Your task to perform on an android device: all mails in gmail Image 0: 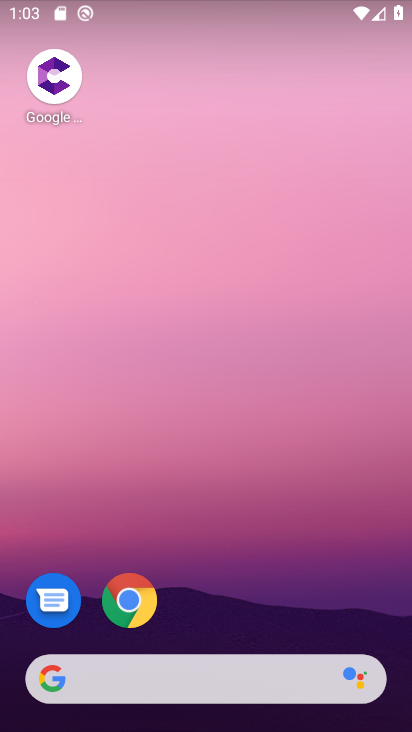
Step 0: drag from (253, 579) to (162, 51)
Your task to perform on an android device: all mails in gmail Image 1: 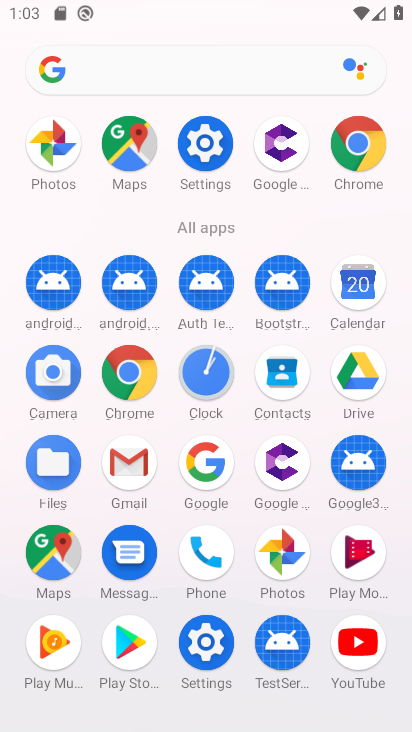
Step 1: click (138, 470)
Your task to perform on an android device: all mails in gmail Image 2: 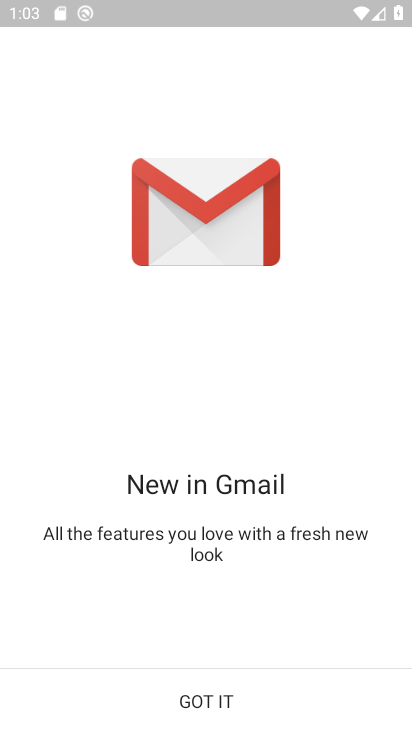
Step 2: click (213, 704)
Your task to perform on an android device: all mails in gmail Image 3: 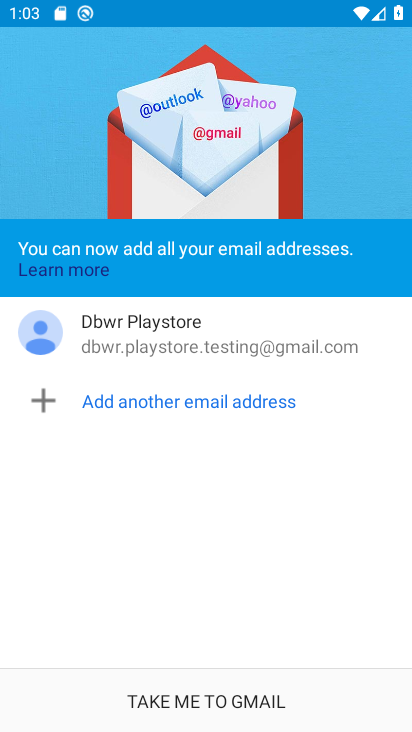
Step 3: click (229, 689)
Your task to perform on an android device: all mails in gmail Image 4: 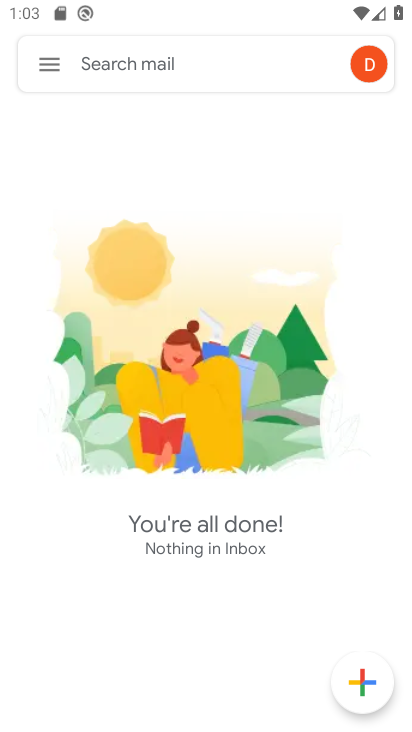
Step 4: click (51, 67)
Your task to perform on an android device: all mails in gmail Image 5: 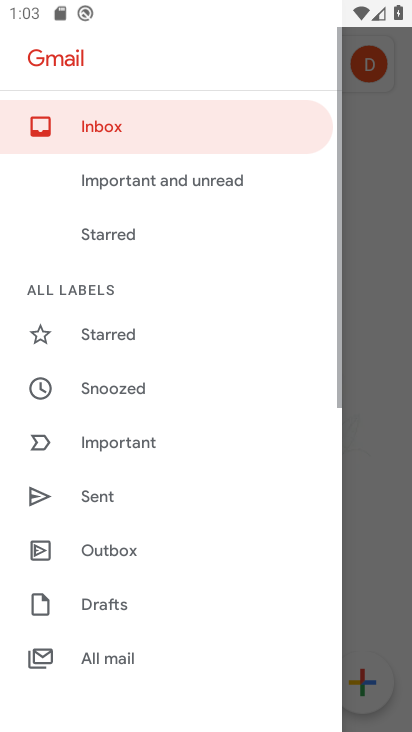
Step 5: drag from (157, 601) to (139, 349)
Your task to perform on an android device: all mails in gmail Image 6: 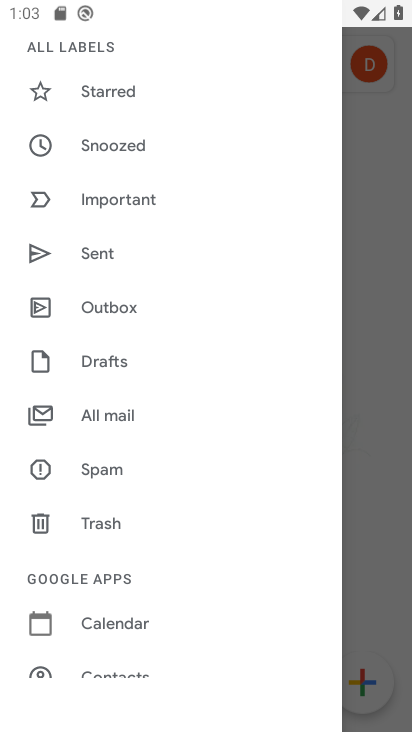
Step 6: click (122, 411)
Your task to perform on an android device: all mails in gmail Image 7: 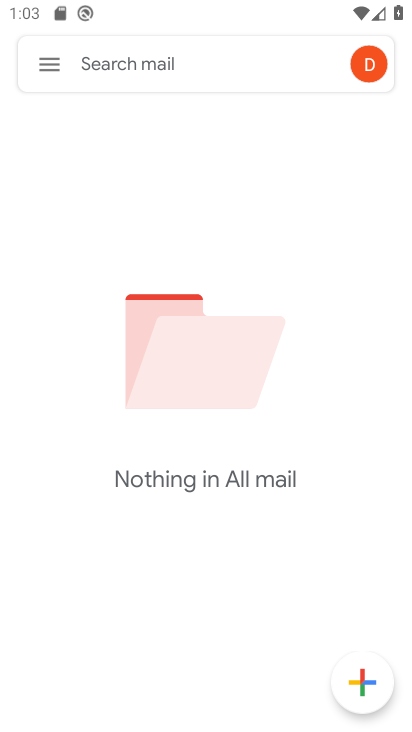
Step 7: task complete